Your task to perform on an android device: What's the weather going to be tomorrow? Image 0: 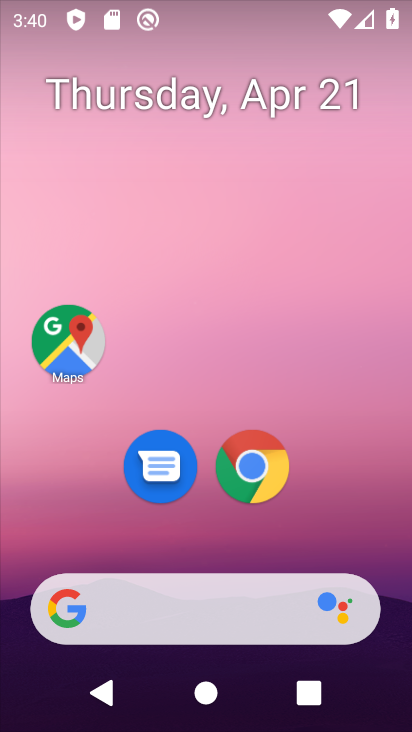
Step 0: drag from (204, 492) to (204, 139)
Your task to perform on an android device: What's the weather going to be tomorrow? Image 1: 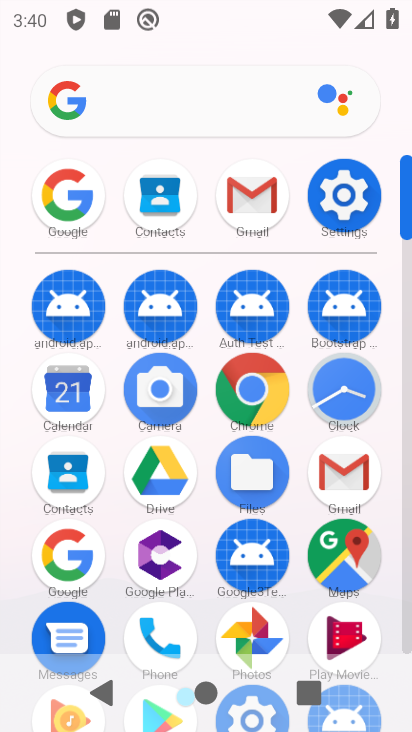
Step 1: click (55, 572)
Your task to perform on an android device: What's the weather going to be tomorrow? Image 2: 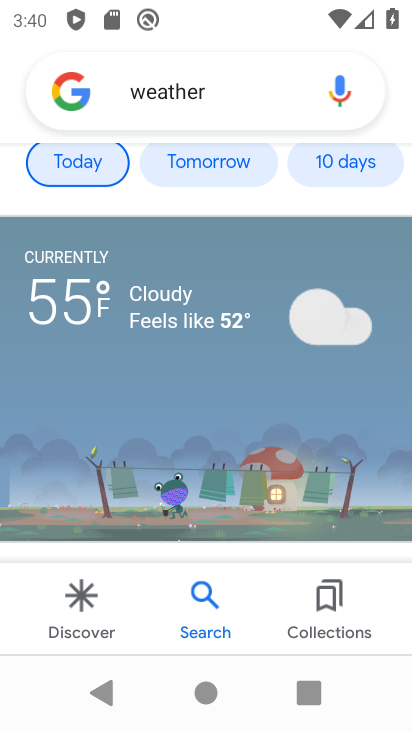
Step 2: click (195, 157)
Your task to perform on an android device: What's the weather going to be tomorrow? Image 3: 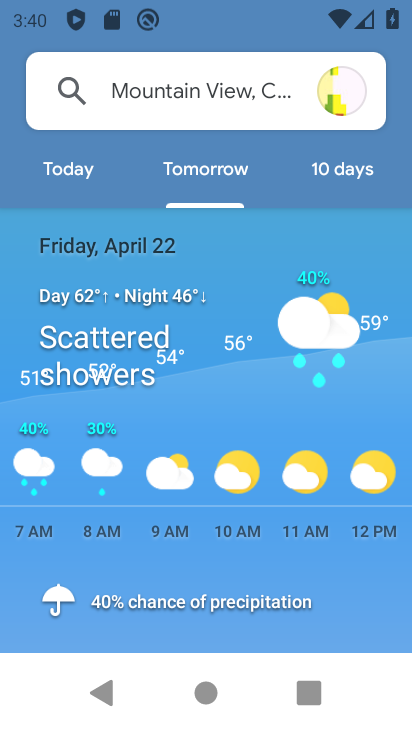
Step 3: task complete